Your task to perform on an android device: Open ESPN.com Image 0: 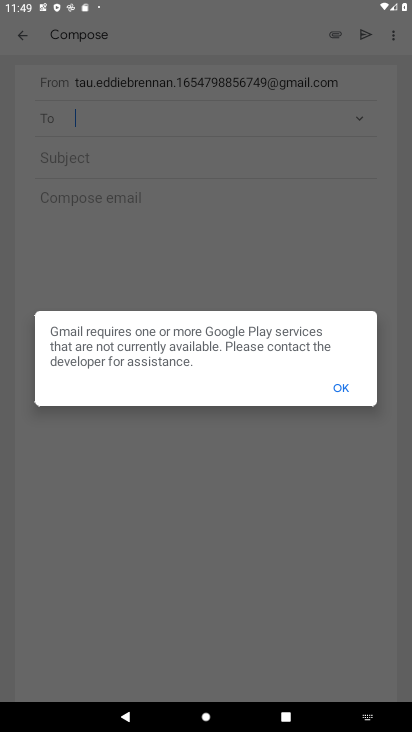
Step 0: task complete